Your task to perform on an android device: open the mobile data screen to see how much data has been used Image 0: 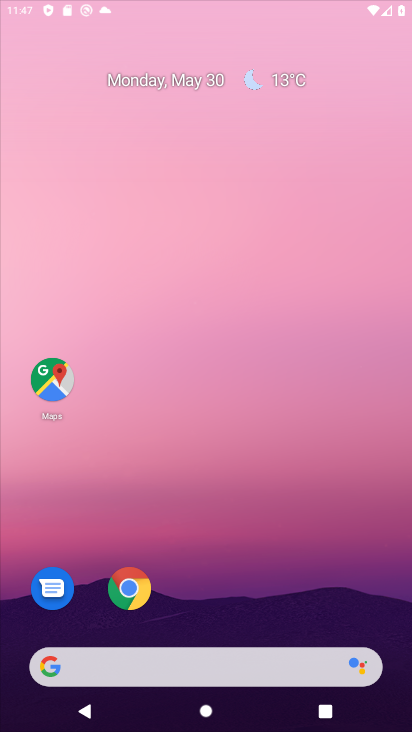
Step 0: click (303, 130)
Your task to perform on an android device: open the mobile data screen to see how much data has been used Image 1: 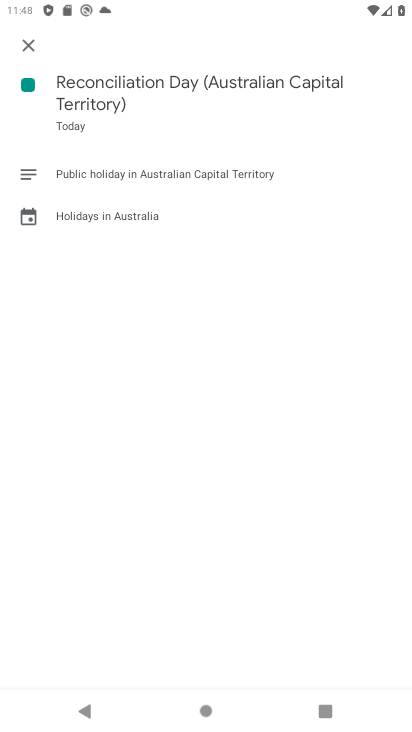
Step 1: press back button
Your task to perform on an android device: open the mobile data screen to see how much data has been used Image 2: 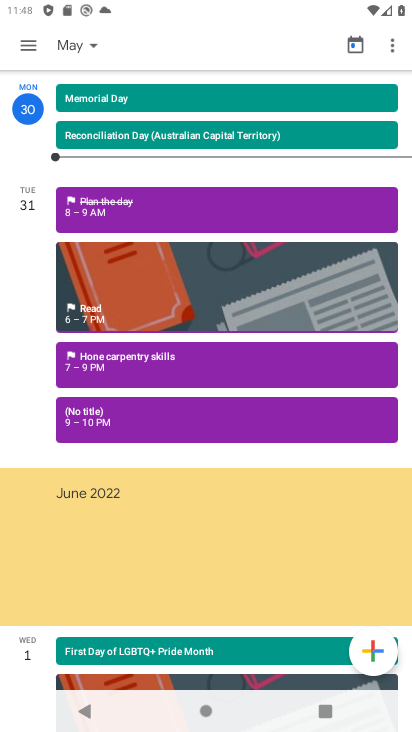
Step 2: click (392, 45)
Your task to perform on an android device: open the mobile data screen to see how much data has been used Image 3: 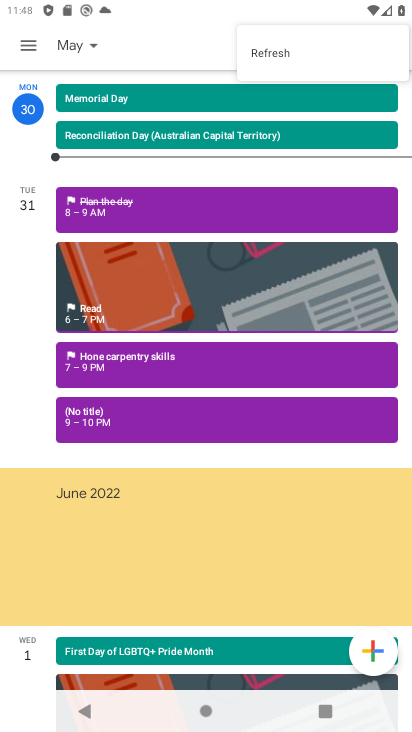
Step 3: click (153, 52)
Your task to perform on an android device: open the mobile data screen to see how much data has been used Image 4: 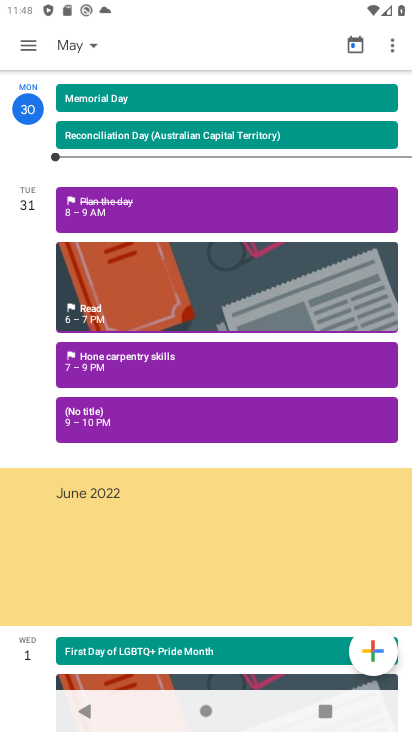
Step 4: press home button
Your task to perform on an android device: open the mobile data screen to see how much data has been used Image 5: 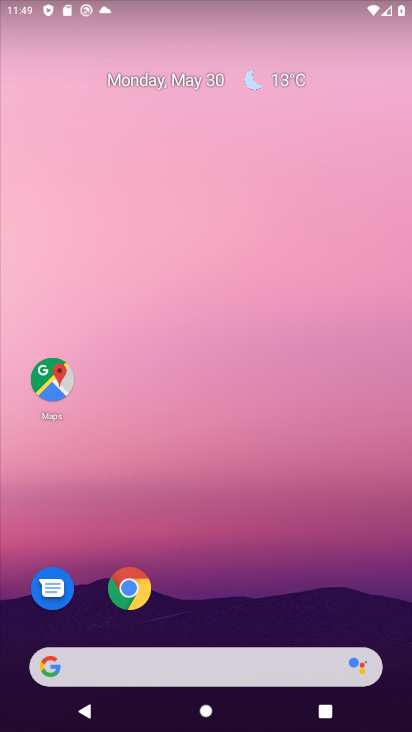
Step 5: drag from (409, 707) to (379, 39)
Your task to perform on an android device: open the mobile data screen to see how much data has been used Image 6: 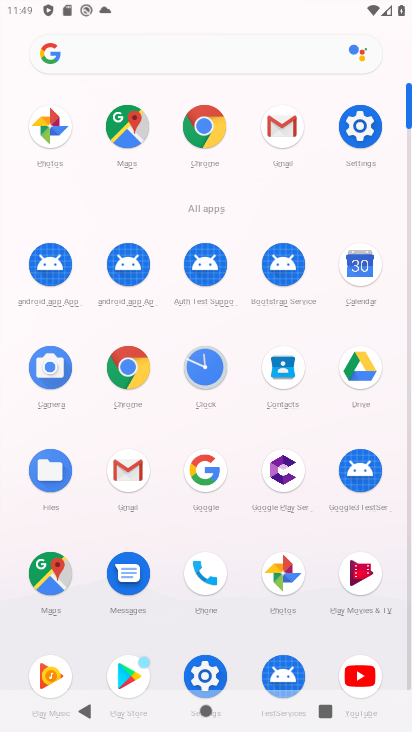
Step 6: click (352, 118)
Your task to perform on an android device: open the mobile data screen to see how much data has been used Image 7: 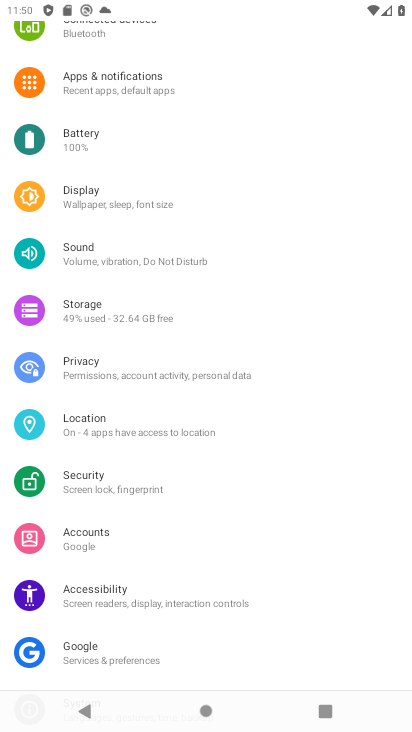
Step 7: drag from (338, 605) to (370, 283)
Your task to perform on an android device: open the mobile data screen to see how much data has been used Image 8: 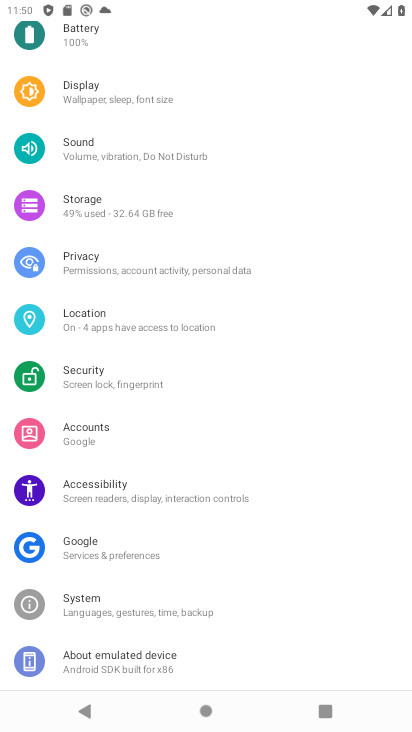
Step 8: drag from (322, 88) to (347, 563)
Your task to perform on an android device: open the mobile data screen to see how much data has been used Image 9: 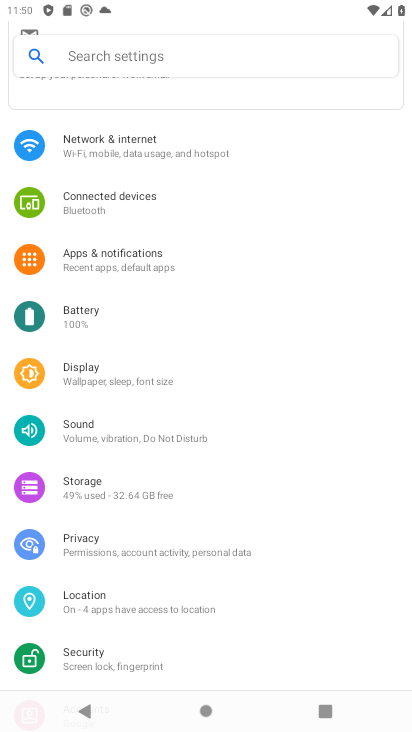
Step 9: click (73, 152)
Your task to perform on an android device: open the mobile data screen to see how much data has been used Image 10: 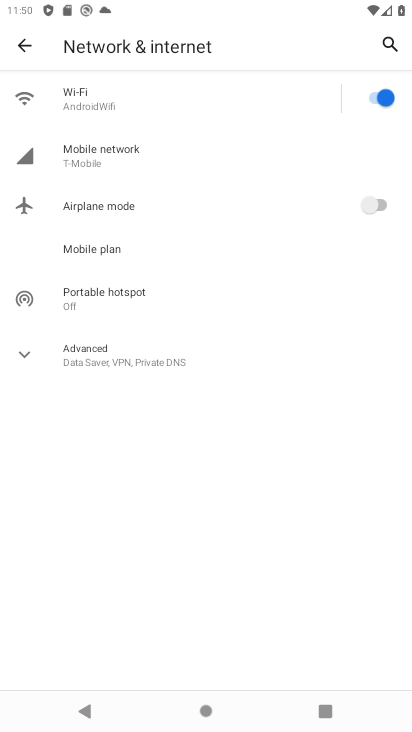
Step 10: click (114, 157)
Your task to perform on an android device: open the mobile data screen to see how much data has been used Image 11: 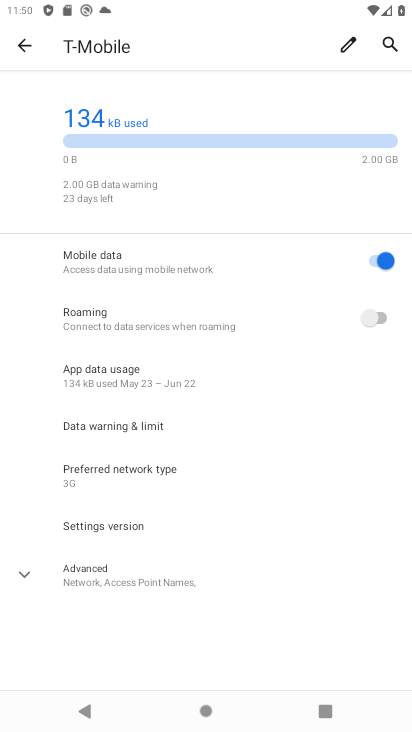
Step 11: task complete